Your task to perform on an android device: toggle javascript in the chrome app Image 0: 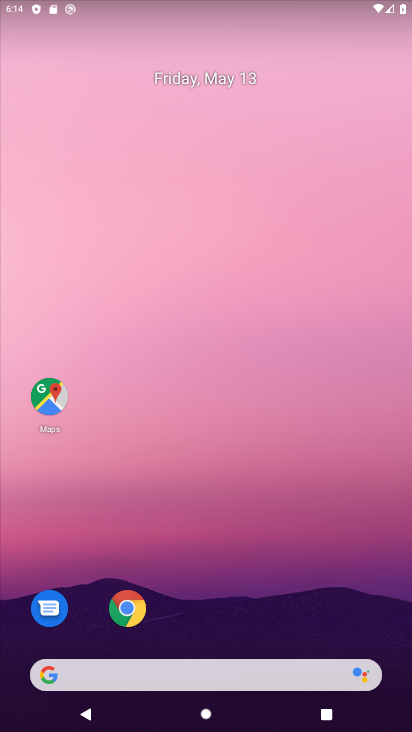
Step 0: click (124, 617)
Your task to perform on an android device: toggle javascript in the chrome app Image 1: 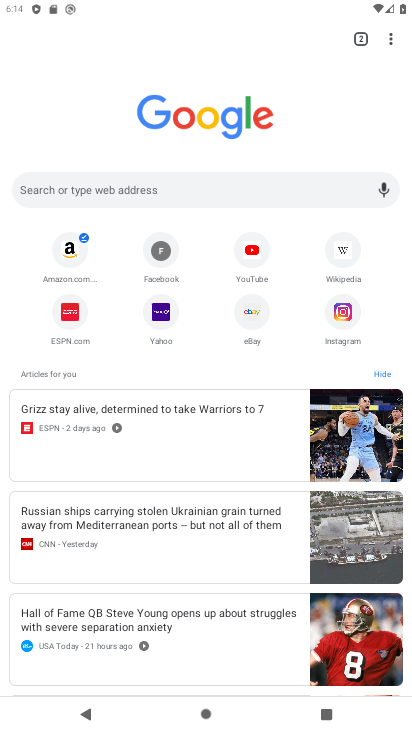
Step 1: click (388, 35)
Your task to perform on an android device: toggle javascript in the chrome app Image 2: 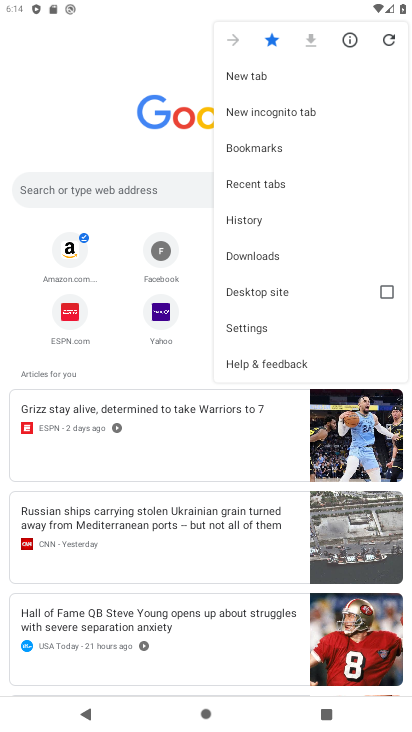
Step 2: click (253, 324)
Your task to perform on an android device: toggle javascript in the chrome app Image 3: 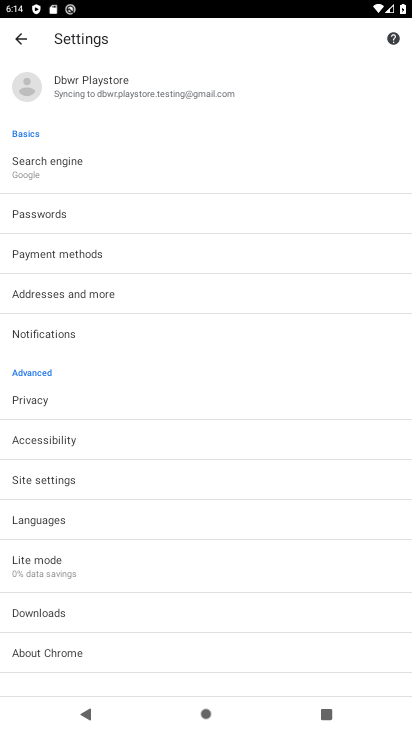
Step 3: click (63, 473)
Your task to perform on an android device: toggle javascript in the chrome app Image 4: 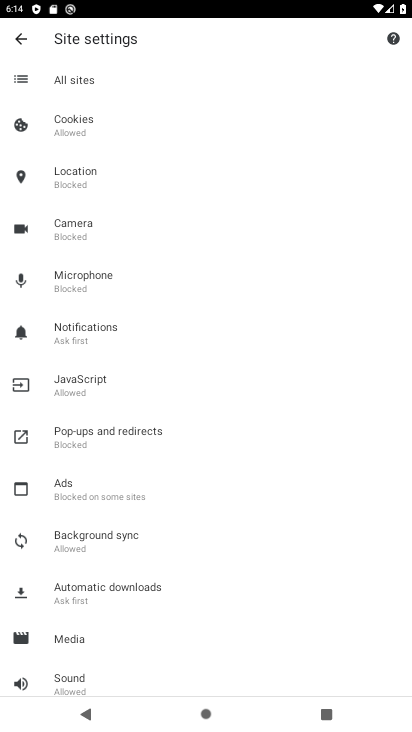
Step 4: click (102, 388)
Your task to perform on an android device: toggle javascript in the chrome app Image 5: 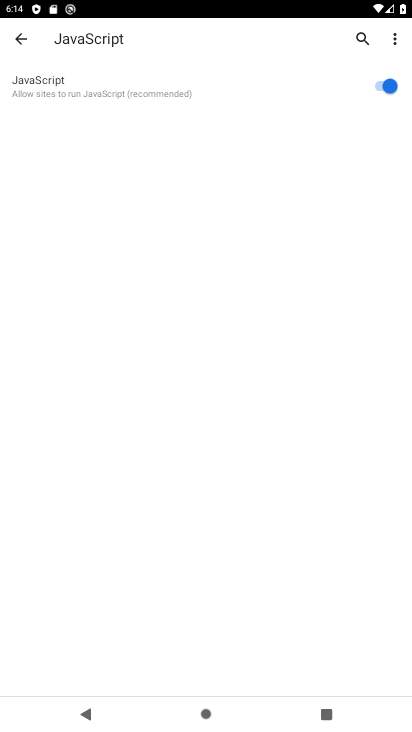
Step 5: click (357, 80)
Your task to perform on an android device: toggle javascript in the chrome app Image 6: 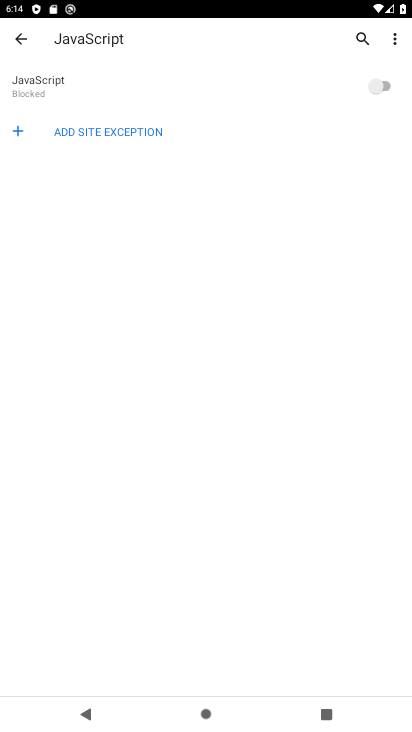
Step 6: task complete